Your task to perform on an android device: Go to Maps Image 0: 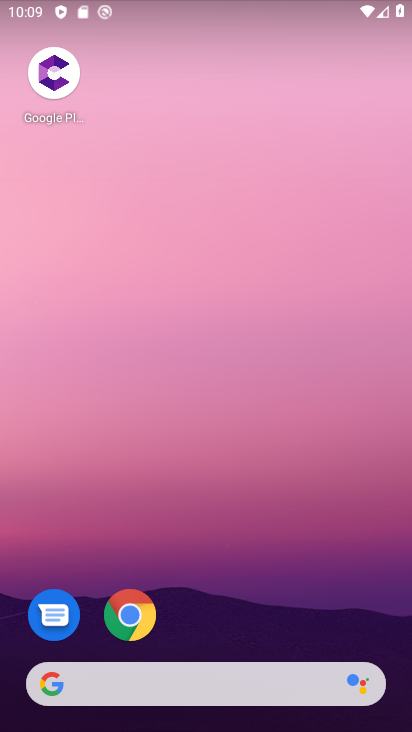
Step 0: drag from (19, 657) to (39, 125)
Your task to perform on an android device: Go to Maps Image 1: 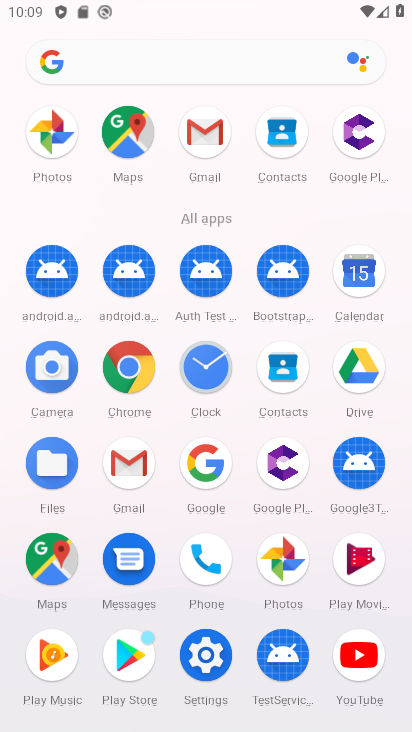
Step 1: click (34, 543)
Your task to perform on an android device: Go to Maps Image 2: 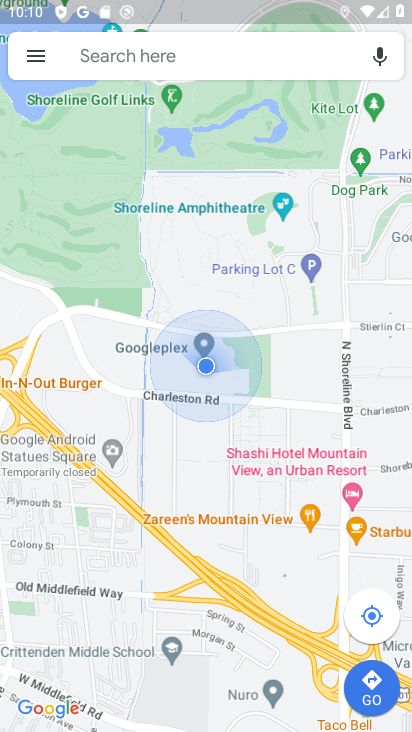
Step 2: task complete